Your task to perform on an android device: Open Google Chrome and click the shortcut for Amazon.com Image 0: 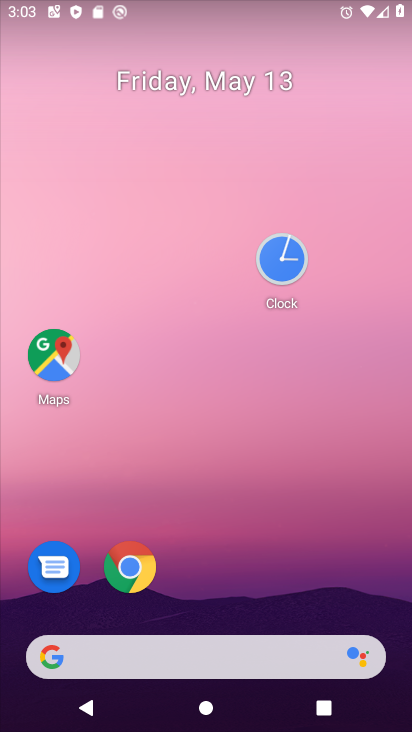
Step 0: click (143, 593)
Your task to perform on an android device: Open Google Chrome and click the shortcut for Amazon.com Image 1: 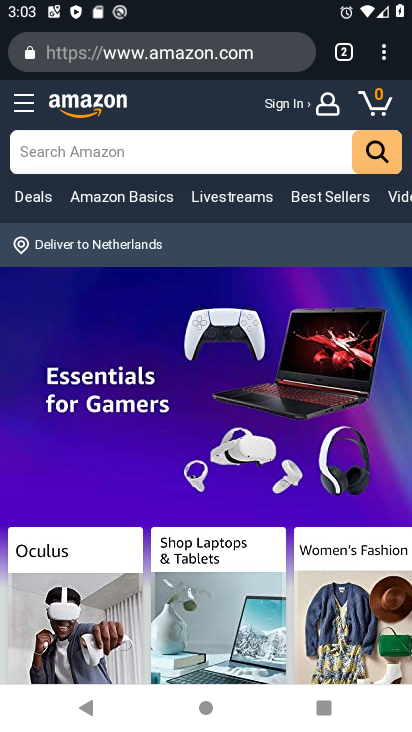
Step 1: task complete